Your task to perform on an android device: see tabs open on other devices in the chrome app Image 0: 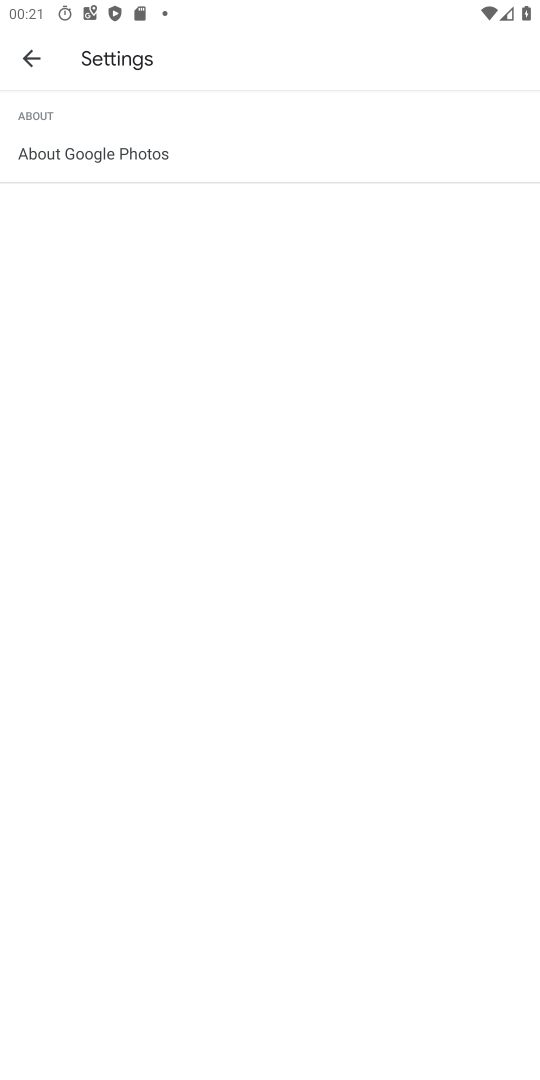
Step 0: press home button
Your task to perform on an android device: see tabs open on other devices in the chrome app Image 1: 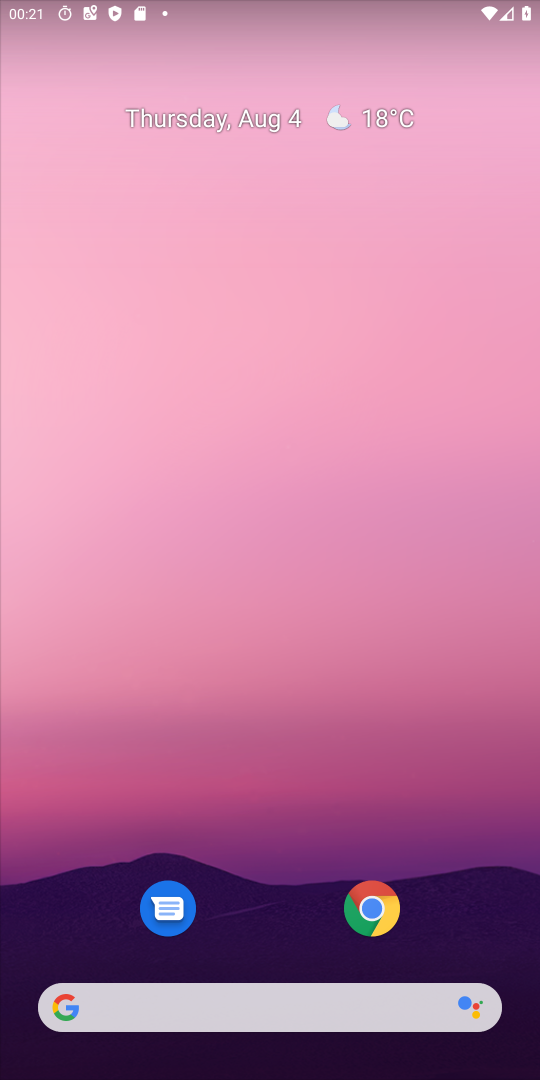
Step 1: drag from (271, 991) to (147, 188)
Your task to perform on an android device: see tabs open on other devices in the chrome app Image 2: 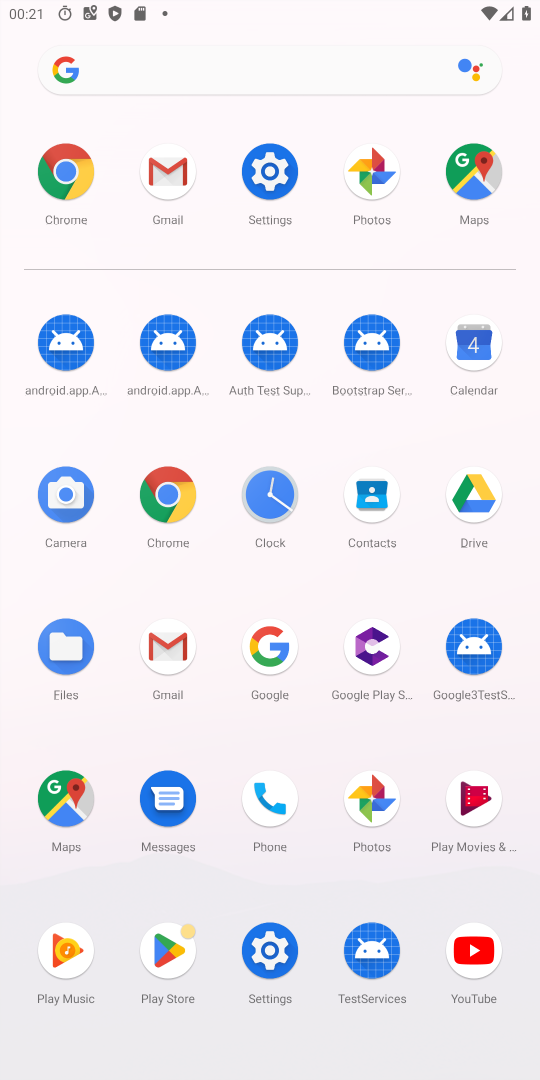
Step 2: click (63, 177)
Your task to perform on an android device: see tabs open on other devices in the chrome app Image 3: 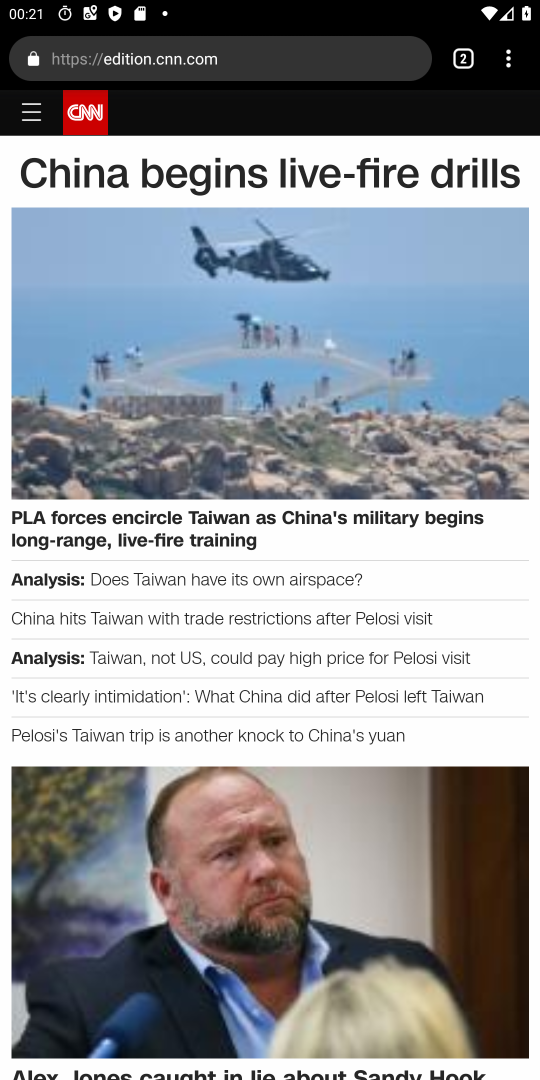
Step 3: click (40, 115)
Your task to perform on an android device: see tabs open on other devices in the chrome app Image 4: 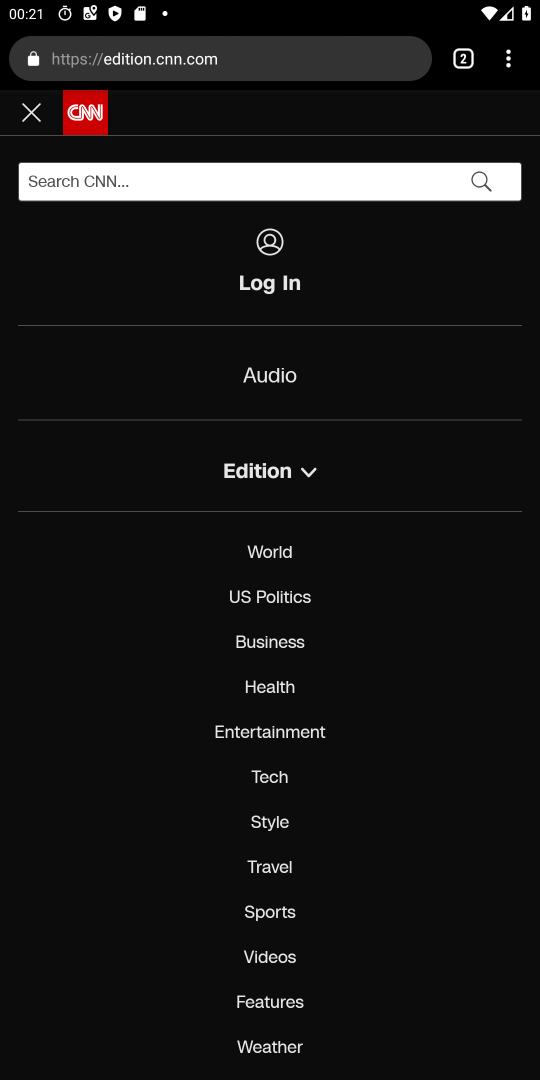
Step 4: click (470, 62)
Your task to perform on an android device: see tabs open on other devices in the chrome app Image 5: 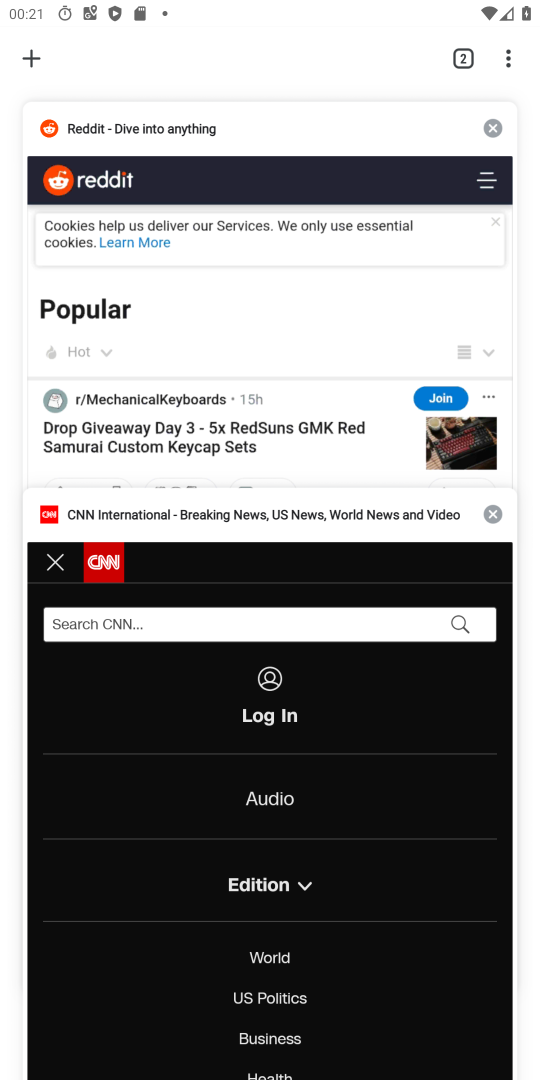
Step 5: click (44, 52)
Your task to perform on an android device: see tabs open on other devices in the chrome app Image 6: 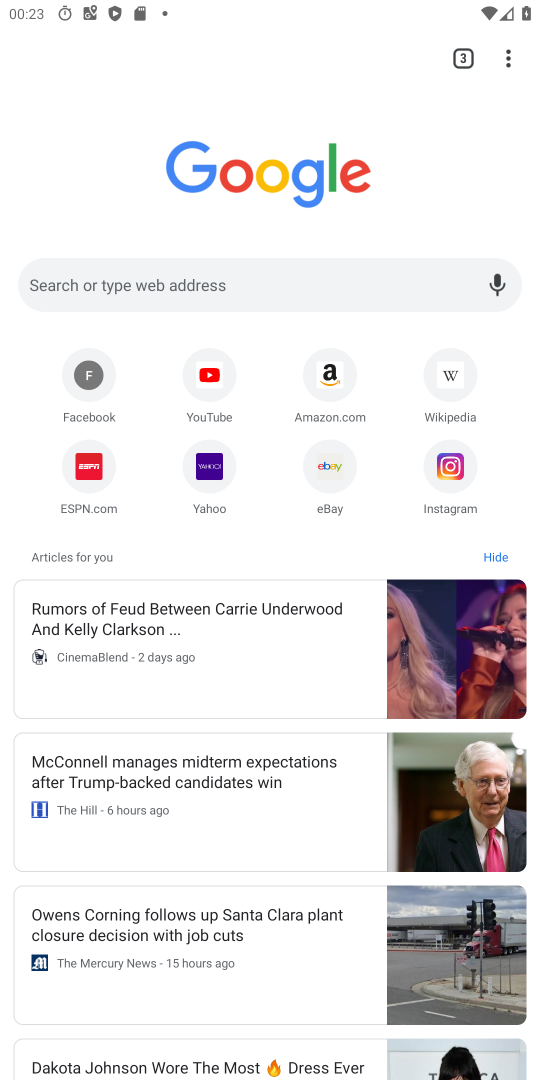
Step 6: task complete